Your task to perform on an android device: Go to display settings Image 0: 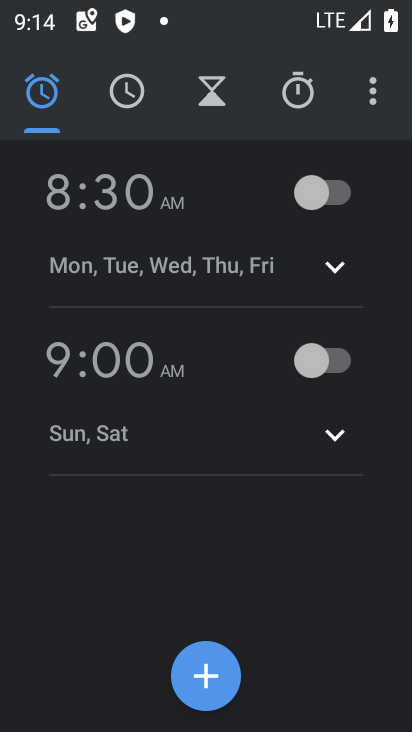
Step 0: press home button
Your task to perform on an android device: Go to display settings Image 1: 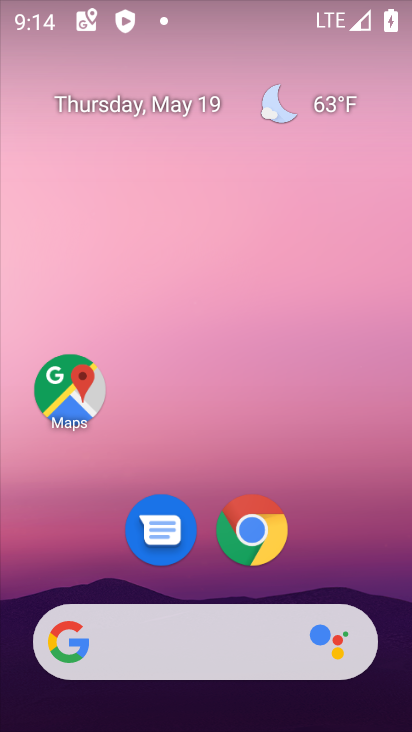
Step 1: drag from (338, 618) to (342, 476)
Your task to perform on an android device: Go to display settings Image 2: 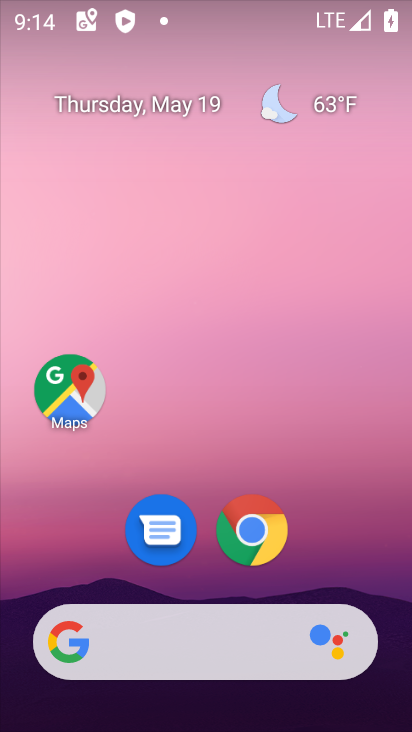
Step 2: drag from (353, 531) to (294, 340)
Your task to perform on an android device: Go to display settings Image 3: 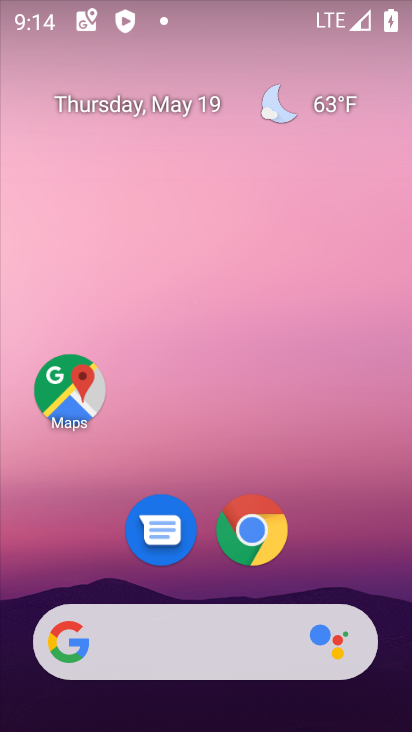
Step 3: drag from (313, 572) to (325, 222)
Your task to perform on an android device: Go to display settings Image 4: 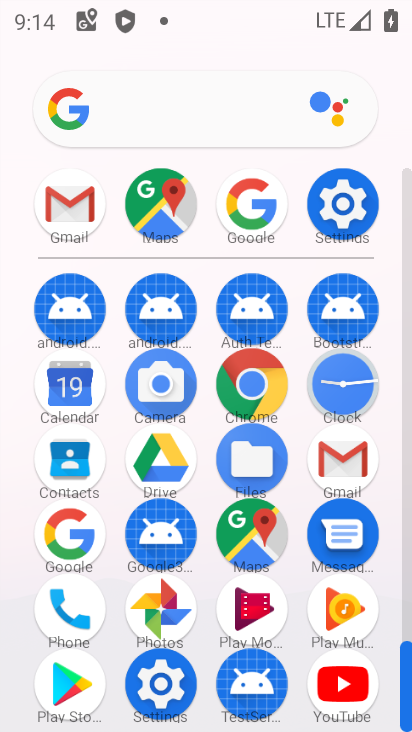
Step 4: click (364, 217)
Your task to perform on an android device: Go to display settings Image 5: 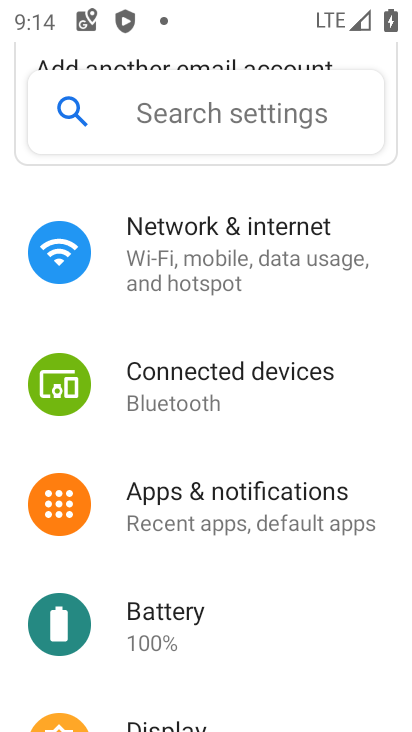
Step 5: drag from (309, 491) to (380, 268)
Your task to perform on an android device: Go to display settings Image 6: 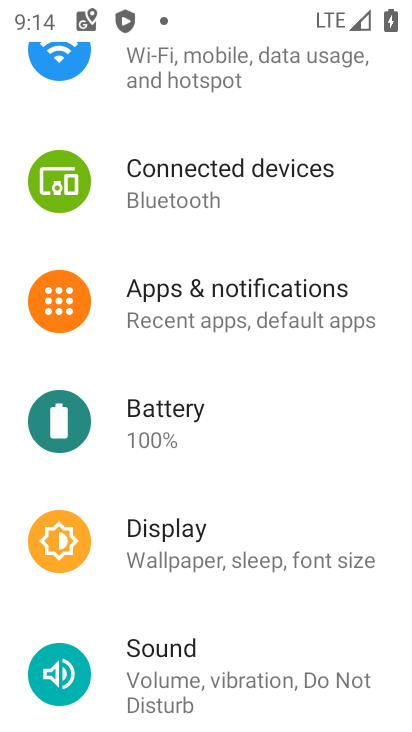
Step 6: click (315, 547)
Your task to perform on an android device: Go to display settings Image 7: 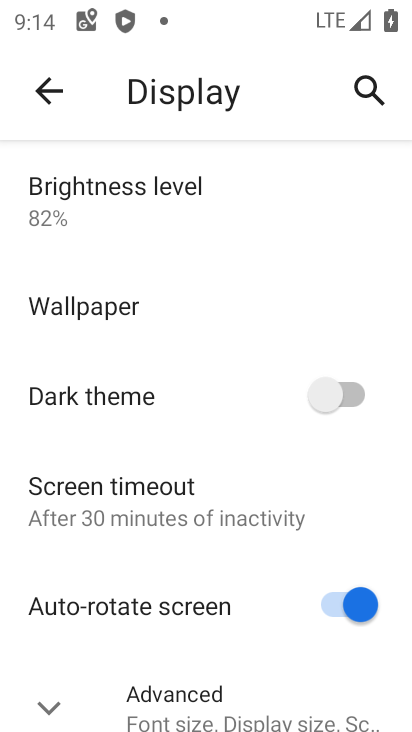
Step 7: task complete